Your task to perform on an android device: See recent photos Image 0: 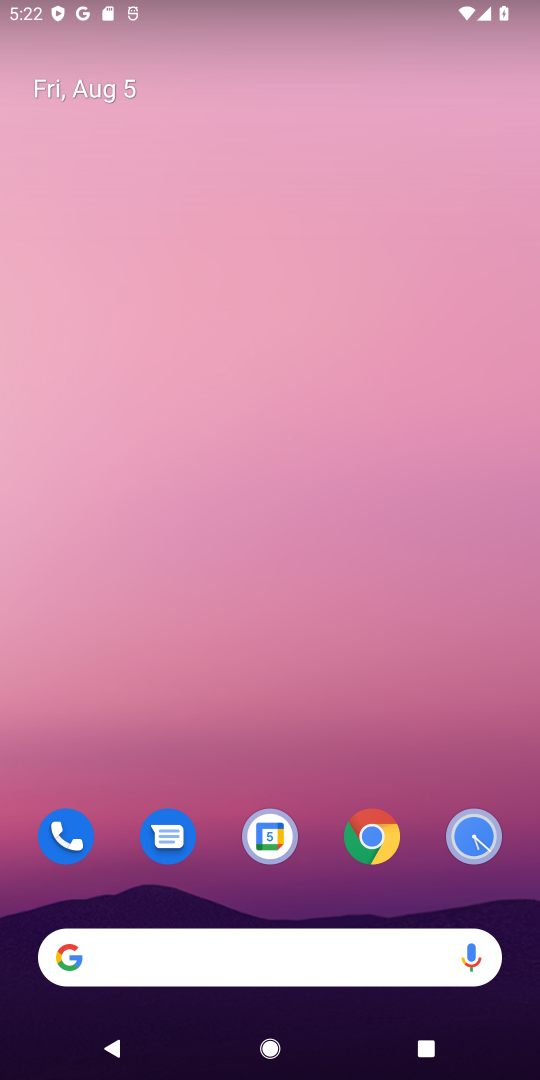
Step 0: drag from (322, 888) to (319, 136)
Your task to perform on an android device: See recent photos Image 1: 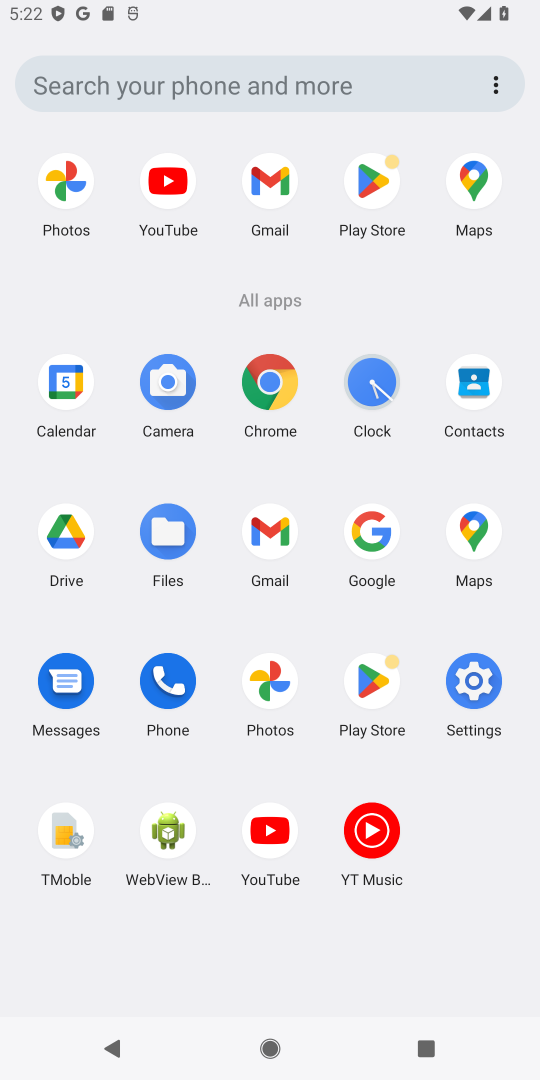
Step 1: click (268, 673)
Your task to perform on an android device: See recent photos Image 2: 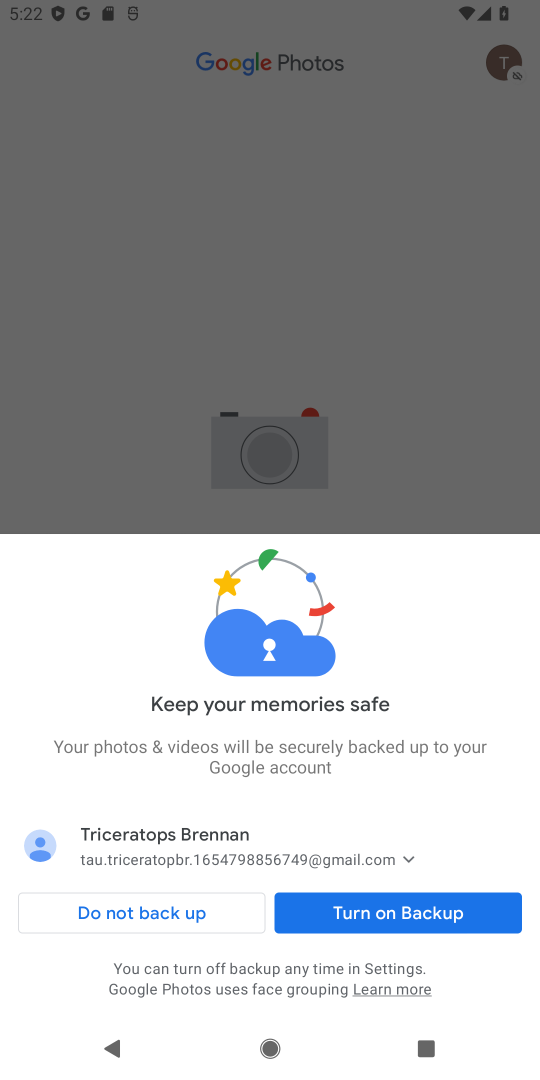
Step 2: click (386, 913)
Your task to perform on an android device: See recent photos Image 3: 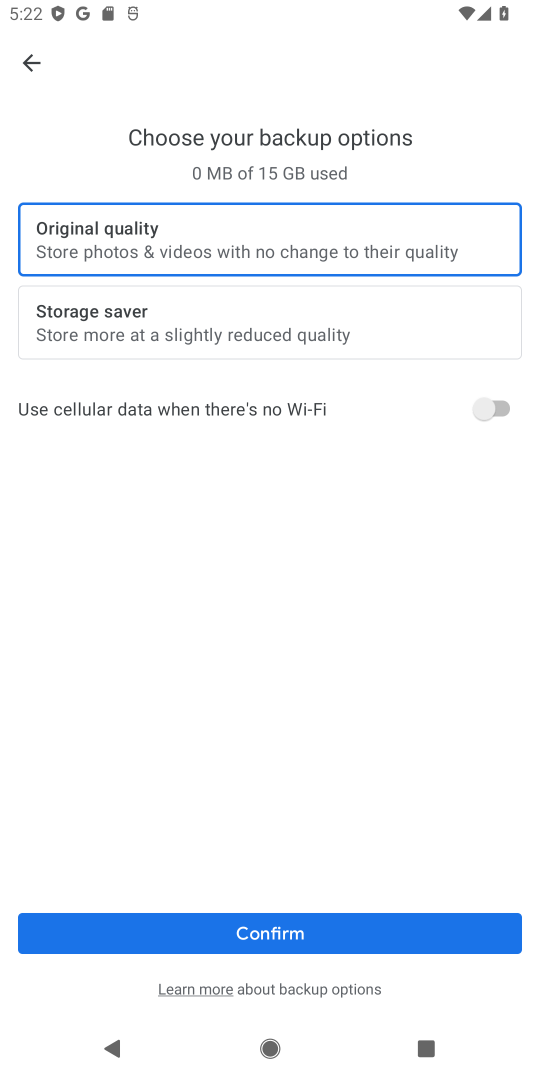
Step 3: click (189, 323)
Your task to perform on an android device: See recent photos Image 4: 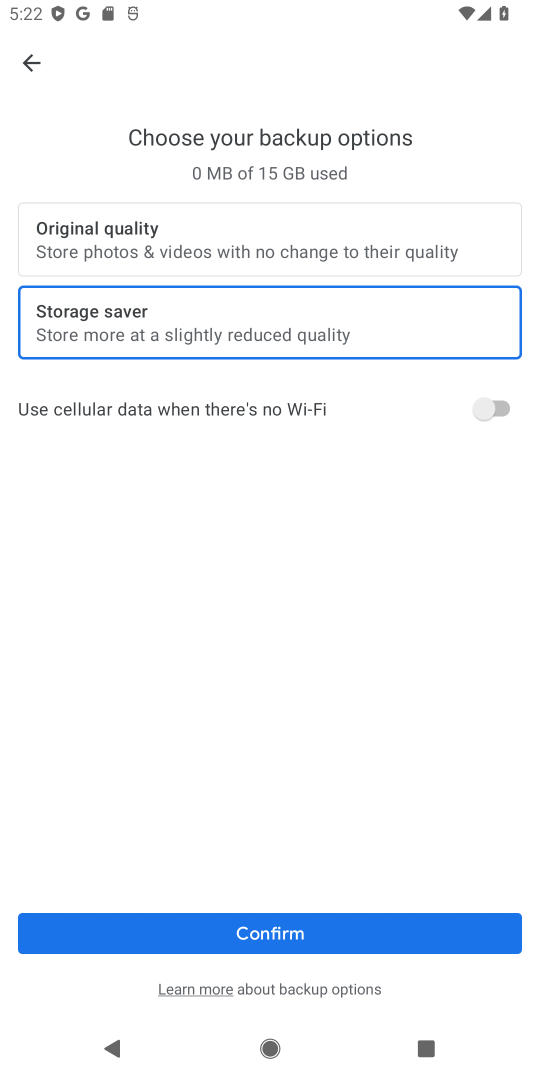
Step 4: click (290, 921)
Your task to perform on an android device: See recent photos Image 5: 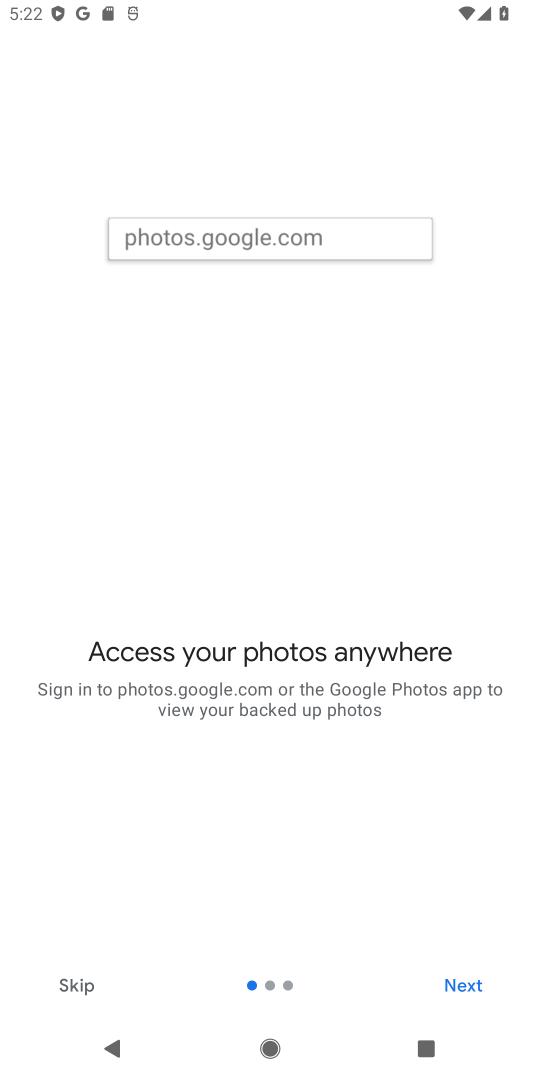
Step 5: click (71, 986)
Your task to perform on an android device: See recent photos Image 6: 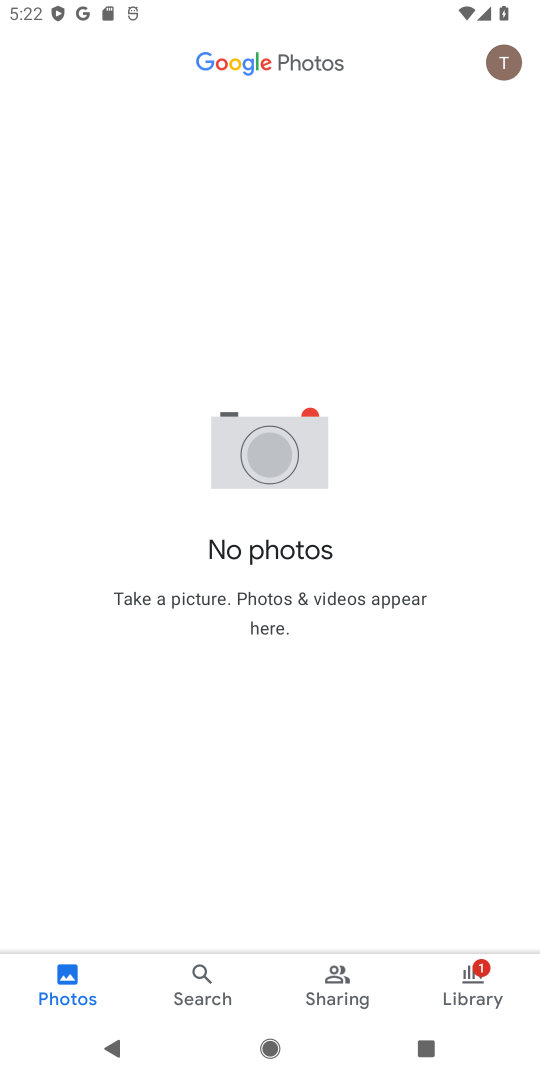
Step 6: task complete